Your task to perform on an android device: install app "Cash App" Image 0: 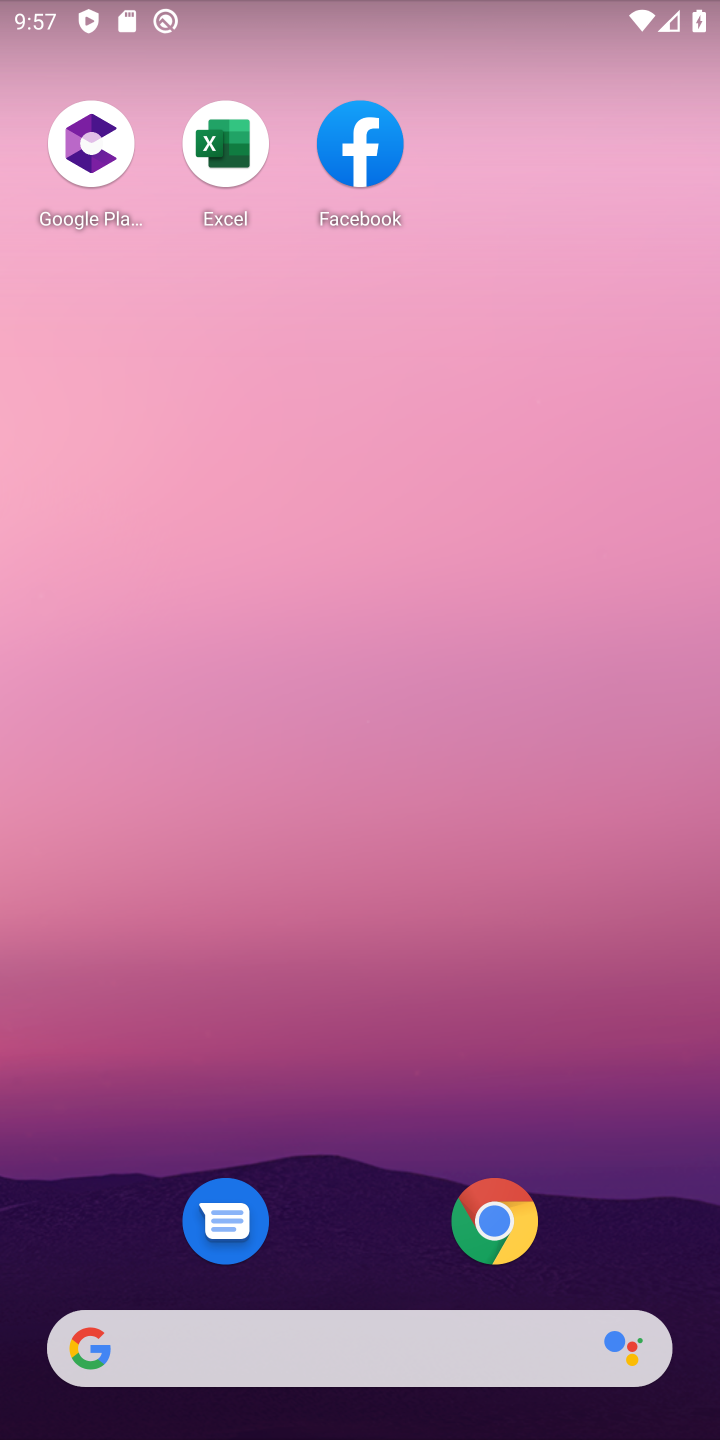
Step 0: drag from (349, 1314) to (434, 567)
Your task to perform on an android device: install app "Cash App" Image 1: 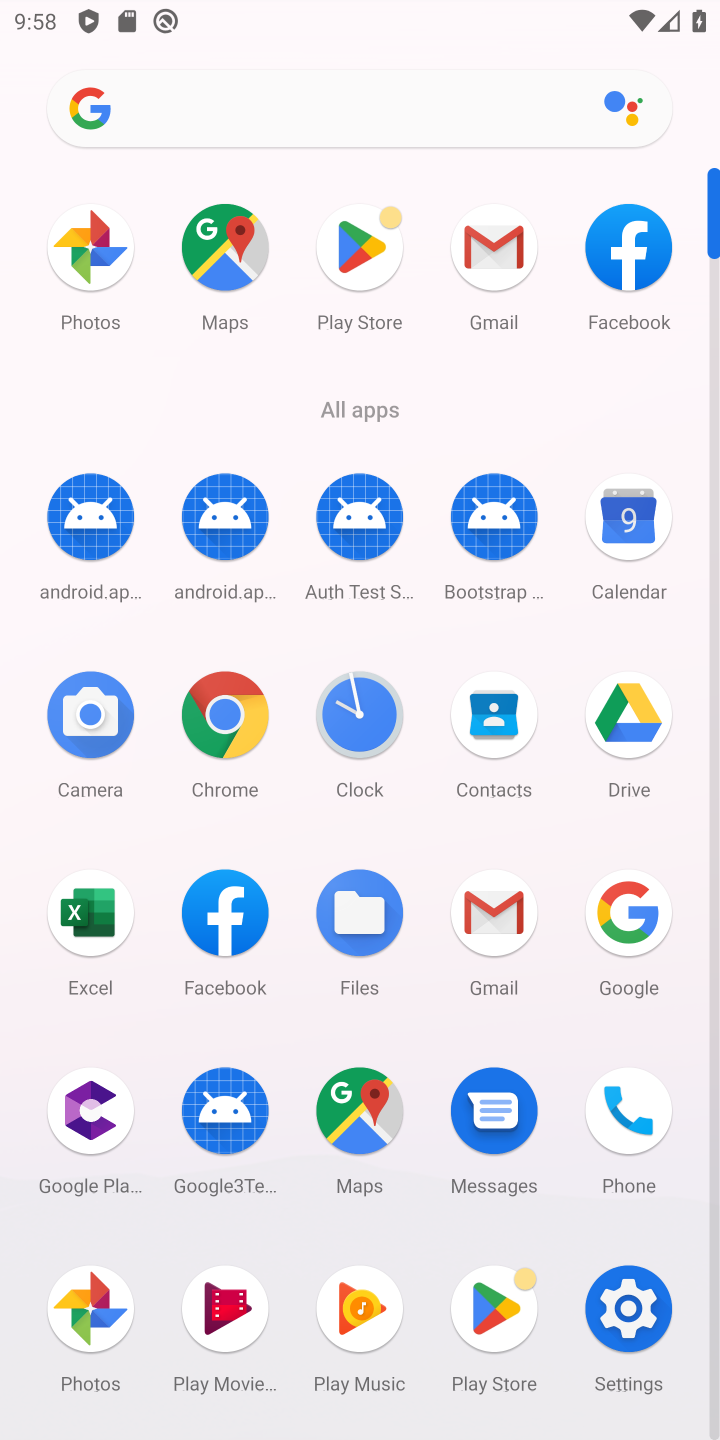
Step 1: click (487, 1309)
Your task to perform on an android device: install app "Cash App" Image 2: 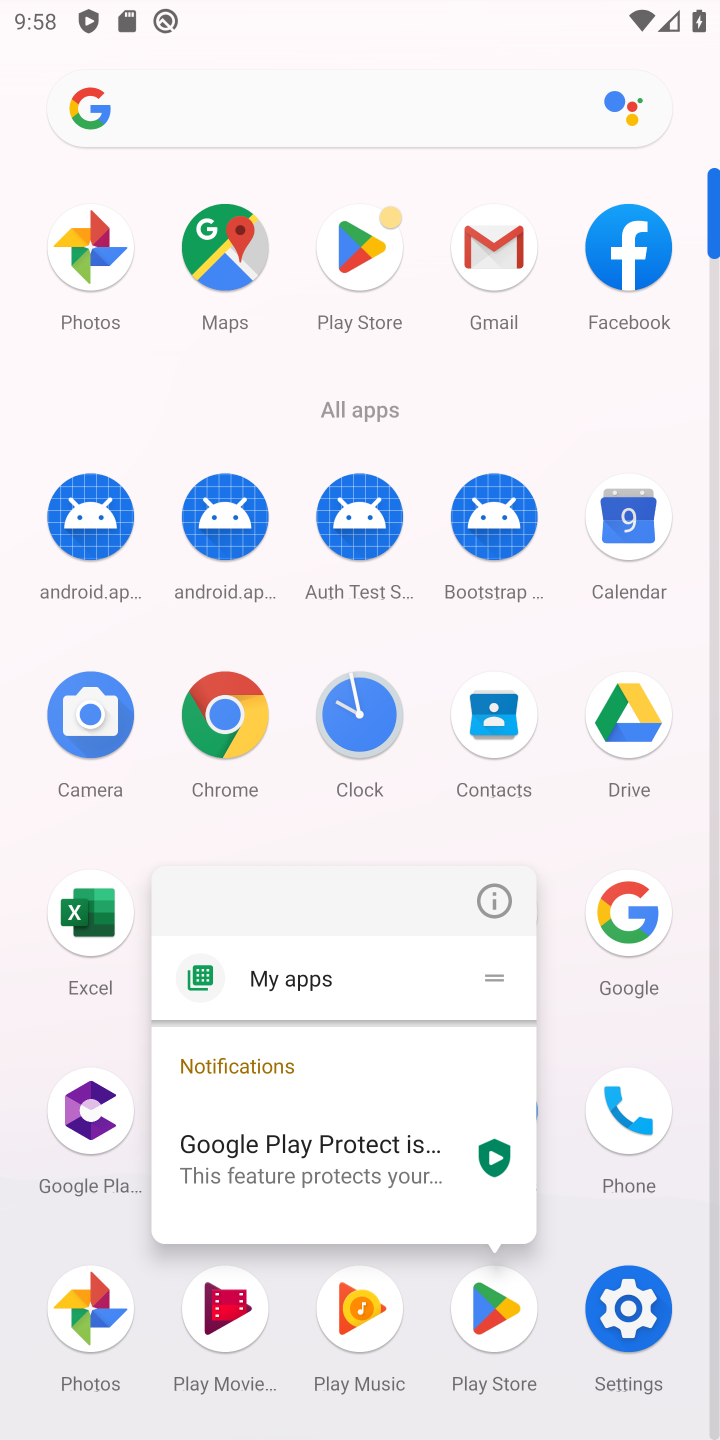
Step 2: click (487, 1316)
Your task to perform on an android device: install app "Cash App" Image 3: 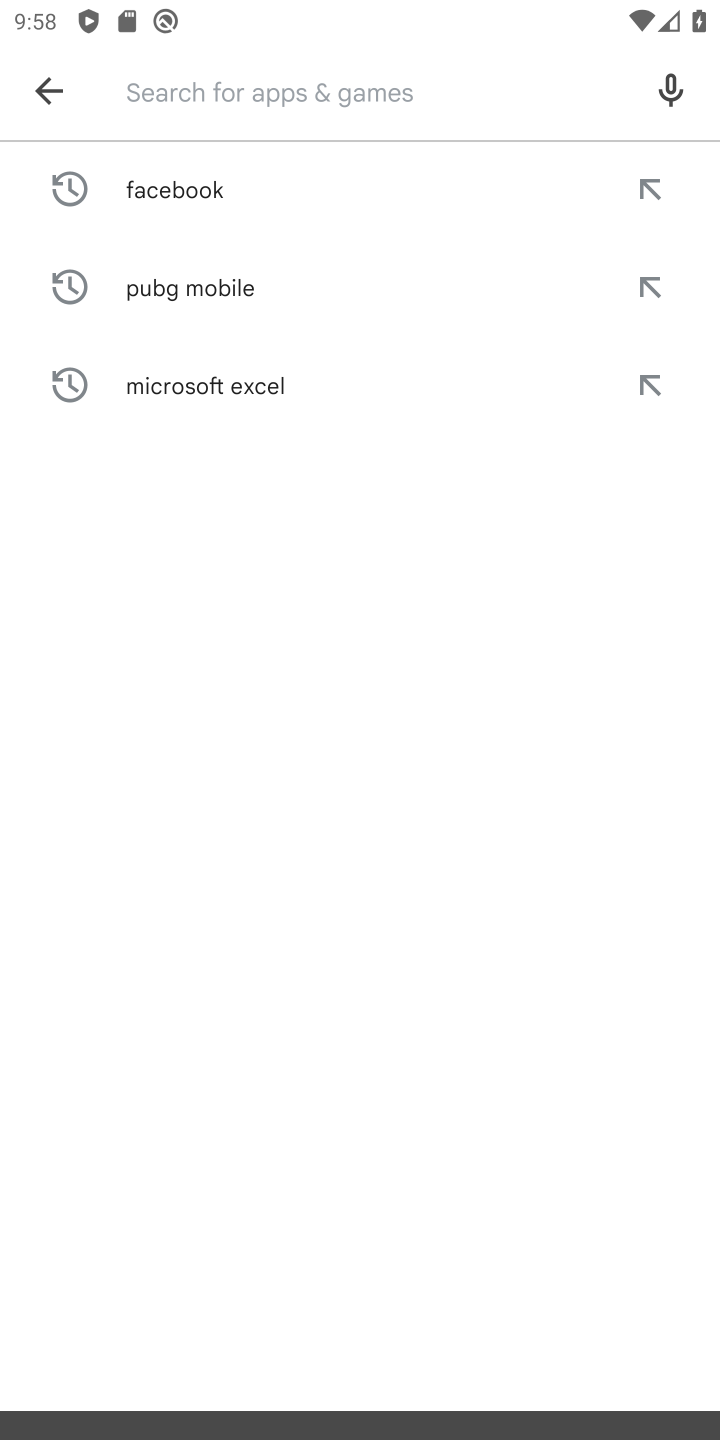
Step 3: click (490, 1313)
Your task to perform on an android device: install app "Cash App" Image 4: 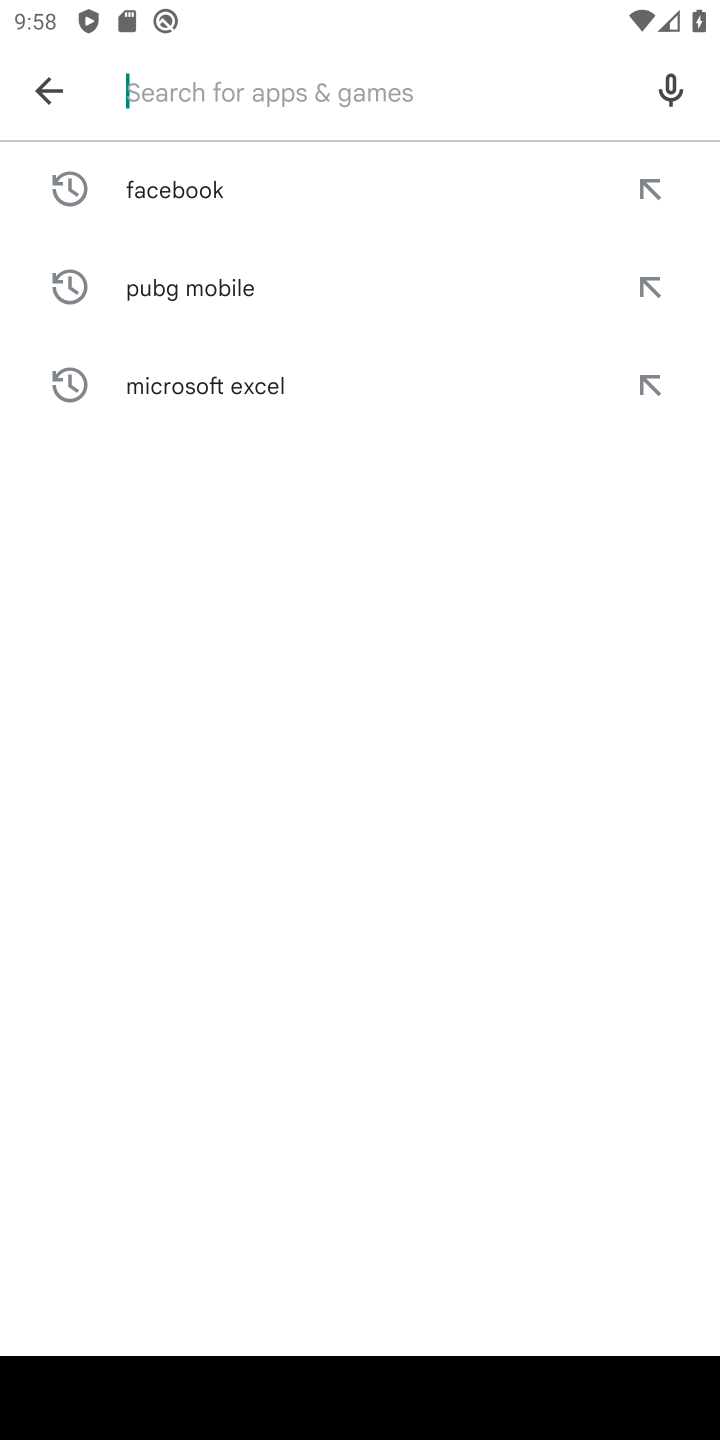
Step 4: type "Cash App"
Your task to perform on an android device: install app "Cash App" Image 5: 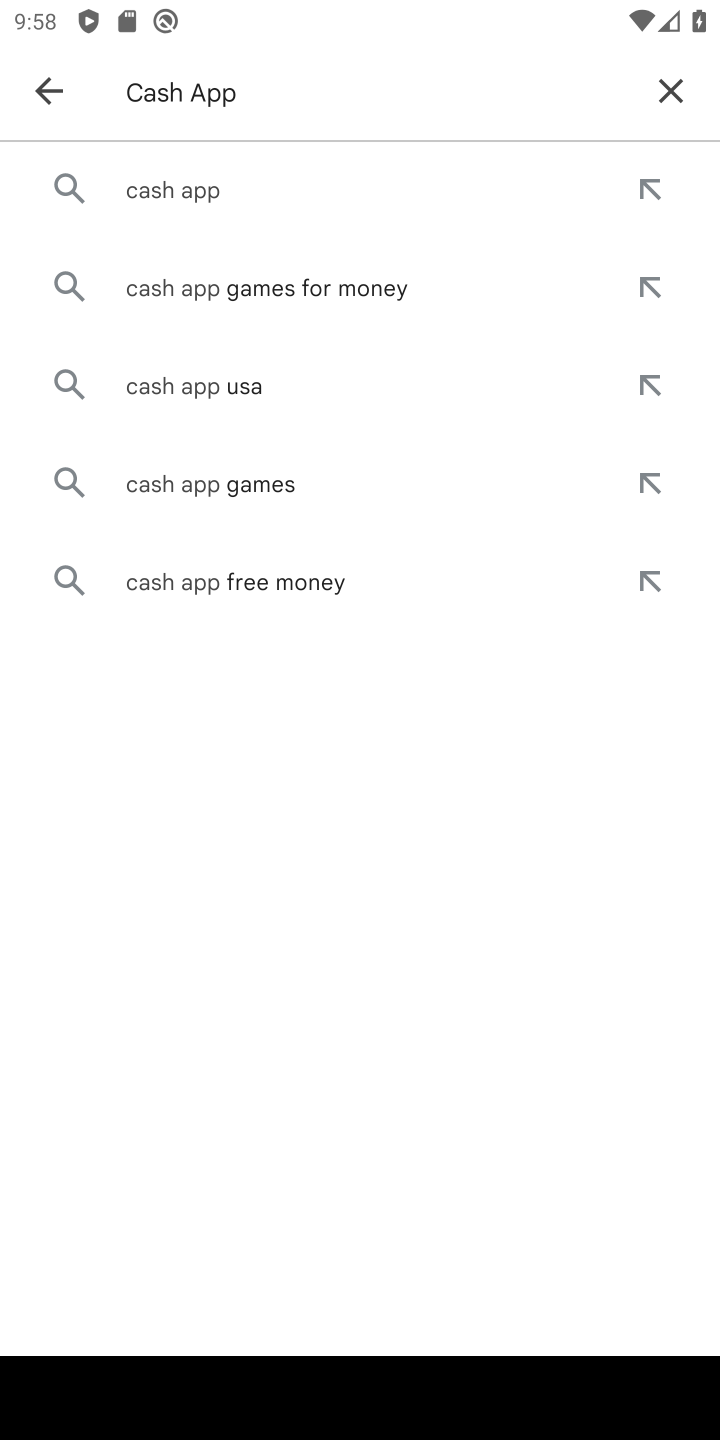
Step 5: click (190, 198)
Your task to perform on an android device: install app "Cash App" Image 6: 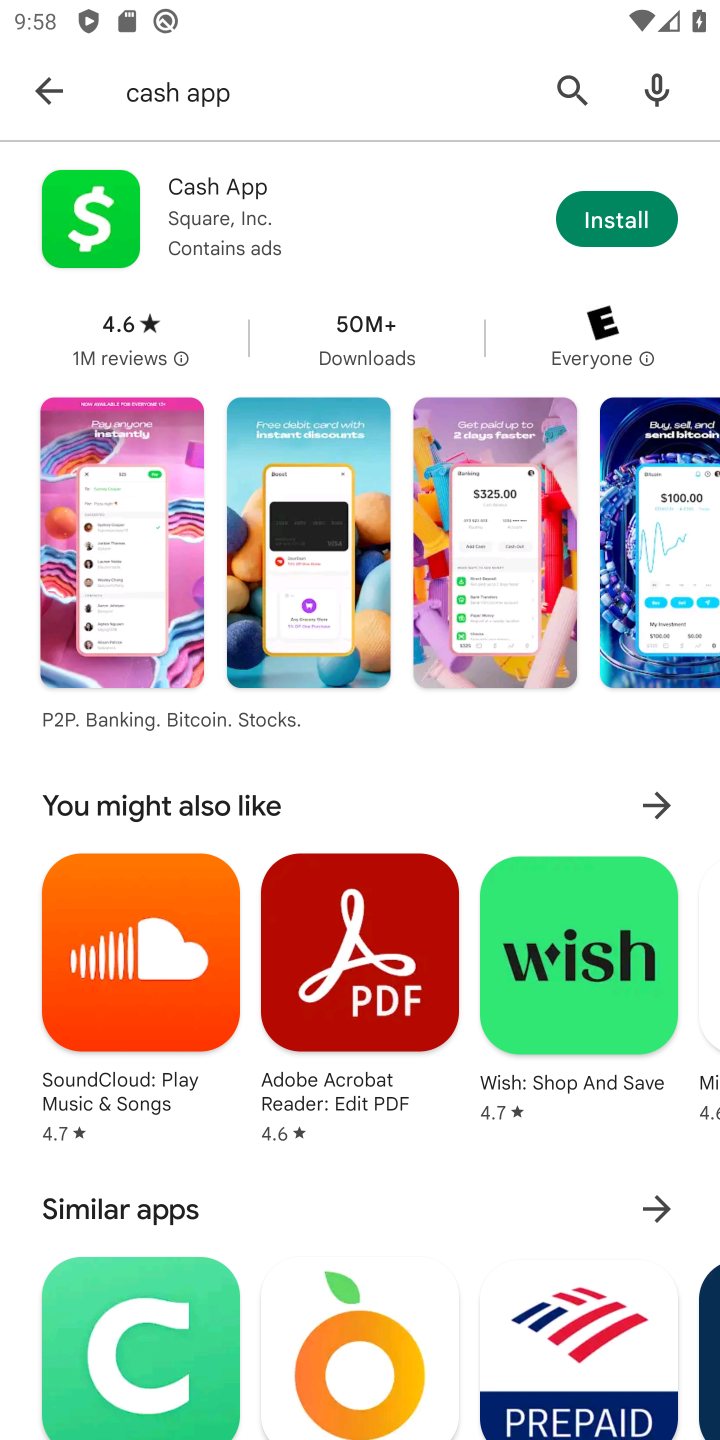
Step 6: click (611, 219)
Your task to perform on an android device: install app "Cash App" Image 7: 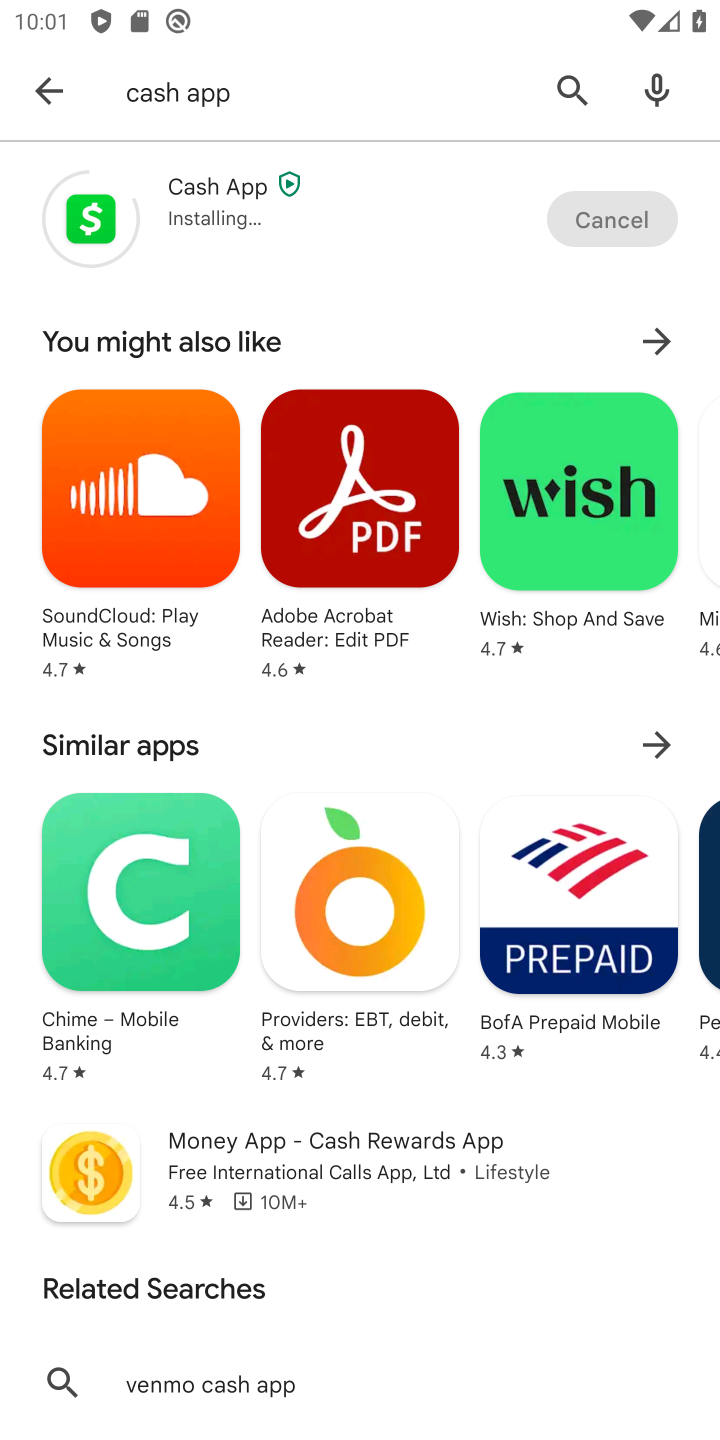
Step 7: task complete